Your task to perform on an android device: toggle javascript in the chrome app Image 0: 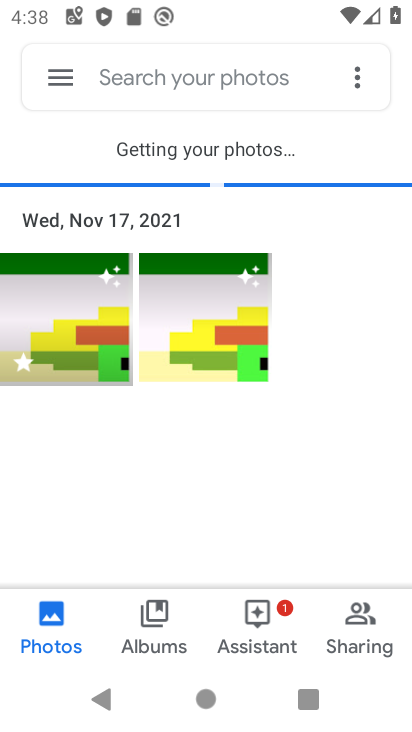
Step 0: press home button
Your task to perform on an android device: toggle javascript in the chrome app Image 1: 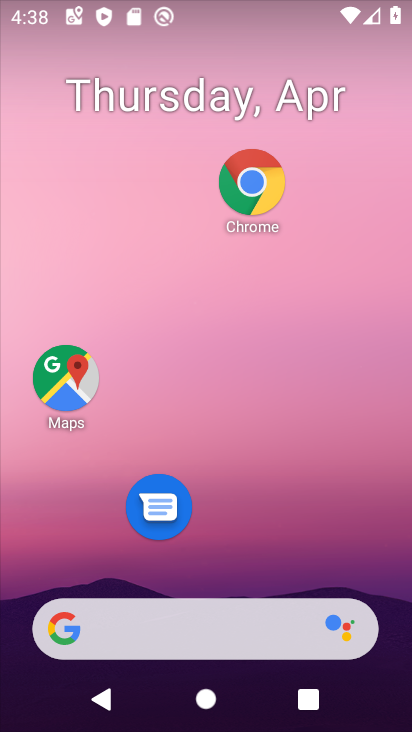
Step 1: click (246, 184)
Your task to perform on an android device: toggle javascript in the chrome app Image 2: 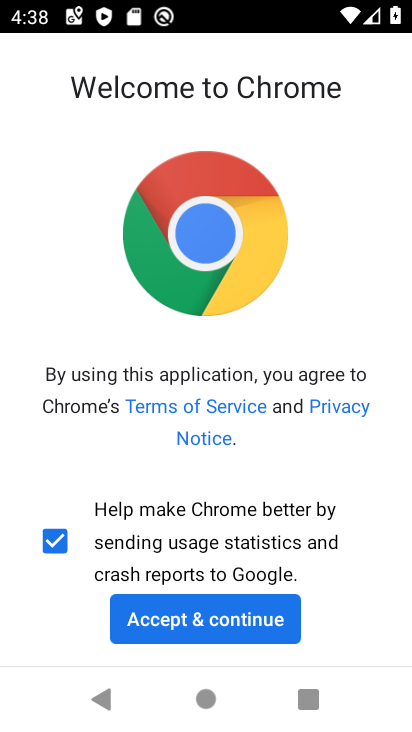
Step 2: click (205, 623)
Your task to perform on an android device: toggle javascript in the chrome app Image 3: 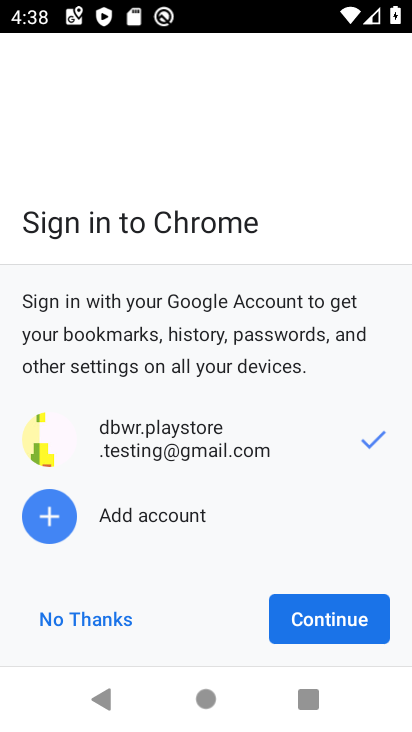
Step 3: click (333, 620)
Your task to perform on an android device: toggle javascript in the chrome app Image 4: 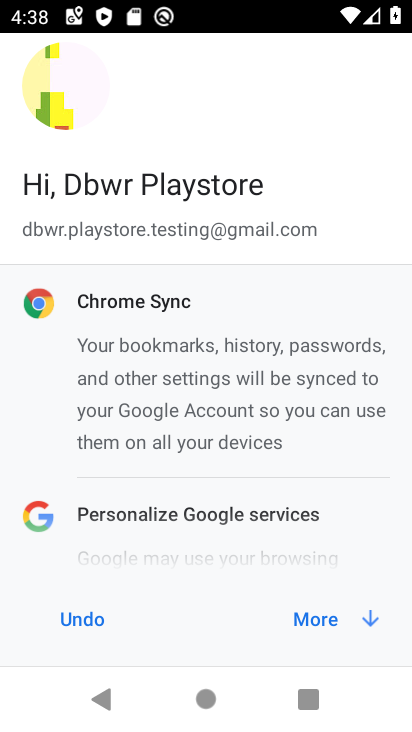
Step 4: click (316, 619)
Your task to perform on an android device: toggle javascript in the chrome app Image 5: 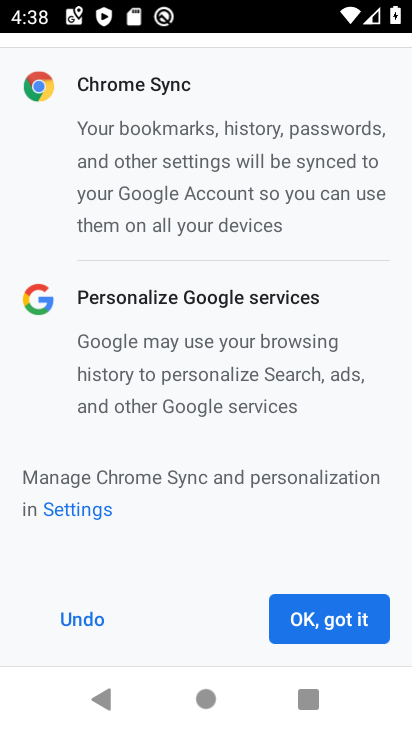
Step 5: click (326, 615)
Your task to perform on an android device: toggle javascript in the chrome app Image 6: 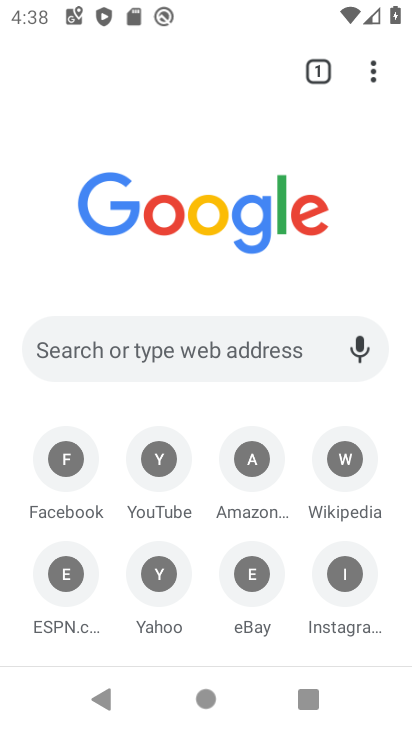
Step 6: drag from (372, 79) to (146, 502)
Your task to perform on an android device: toggle javascript in the chrome app Image 7: 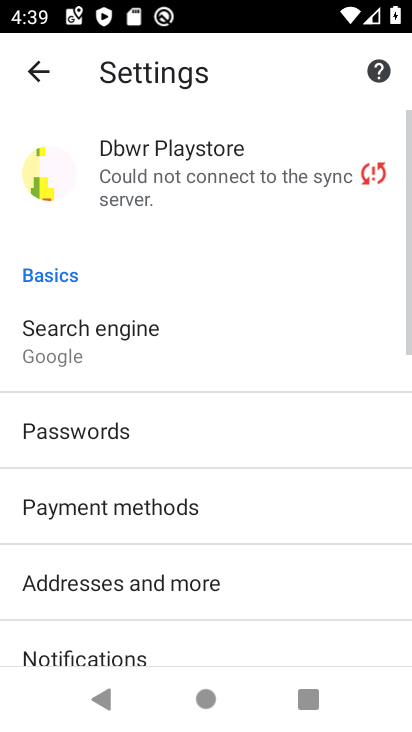
Step 7: drag from (184, 613) to (194, 258)
Your task to perform on an android device: toggle javascript in the chrome app Image 8: 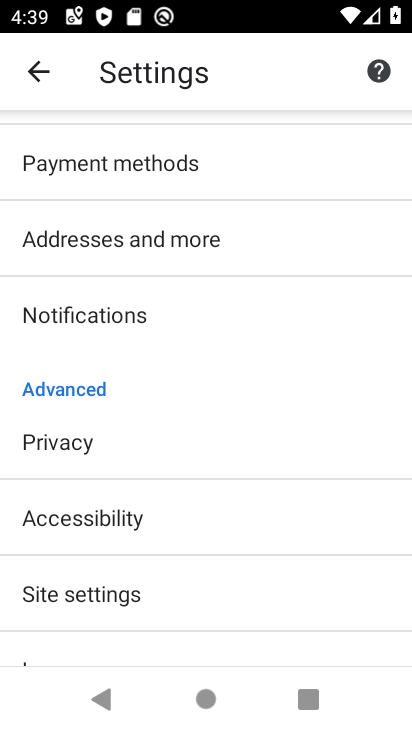
Step 8: click (107, 593)
Your task to perform on an android device: toggle javascript in the chrome app Image 9: 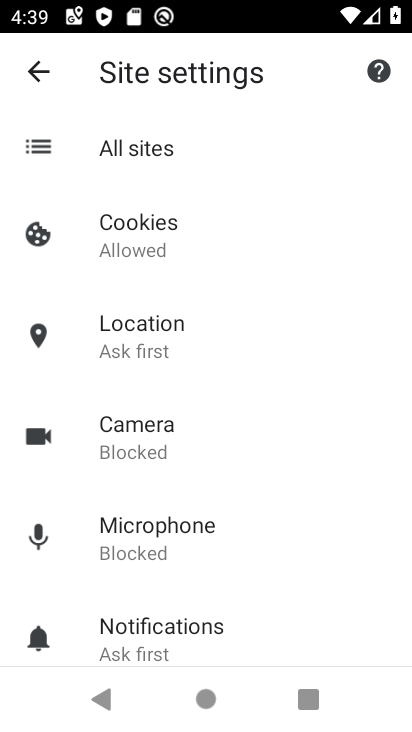
Step 9: drag from (200, 626) to (210, 404)
Your task to perform on an android device: toggle javascript in the chrome app Image 10: 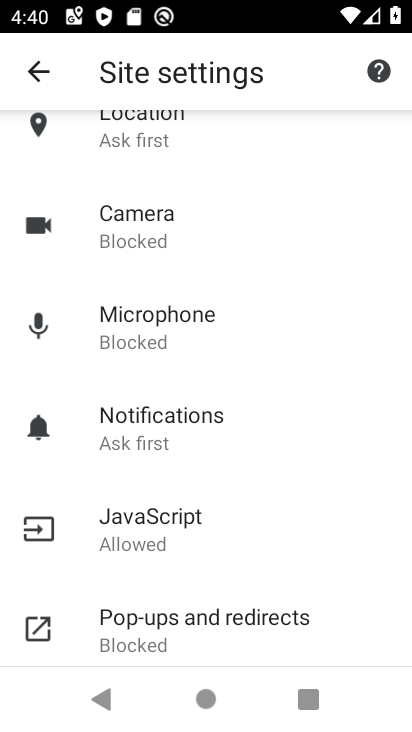
Step 10: click (134, 518)
Your task to perform on an android device: toggle javascript in the chrome app Image 11: 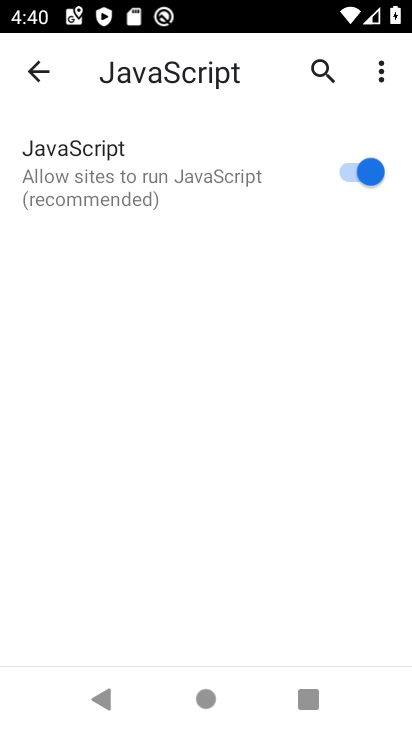
Step 11: click (349, 168)
Your task to perform on an android device: toggle javascript in the chrome app Image 12: 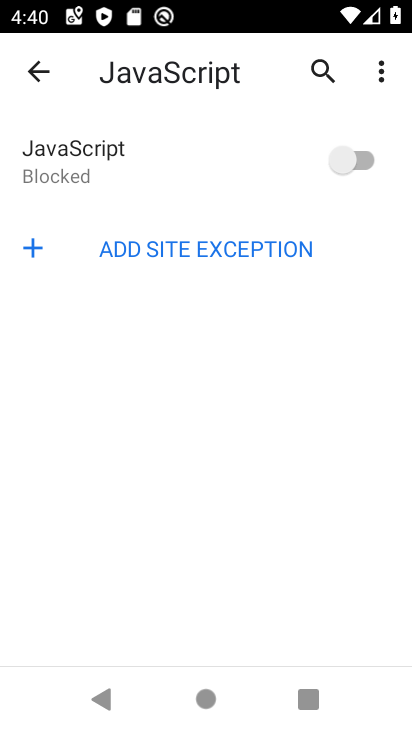
Step 12: task complete